Your task to perform on an android device: empty trash in google photos Image 0: 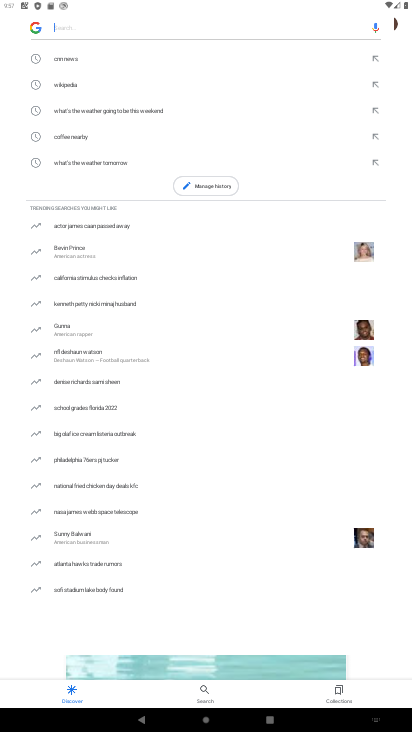
Step 0: press home button
Your task to perform on an android device: empty trash in google photos Image 1: 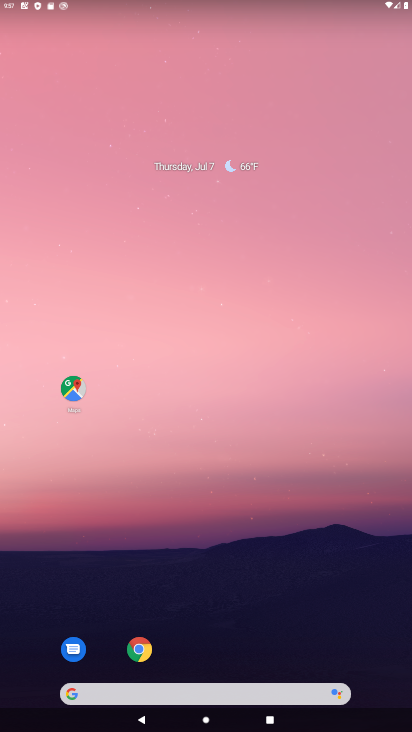
Step 1: drag from (216, 505) to (227, 4)
Your task to perform on an android device: empty trash in google photos Image 2: 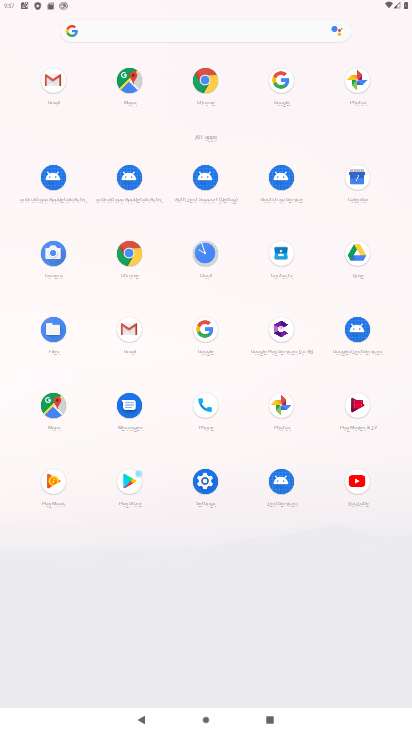
Step 2: click (353, 71)
Your task to perform on an android device: empty trash in google photos Image 3: 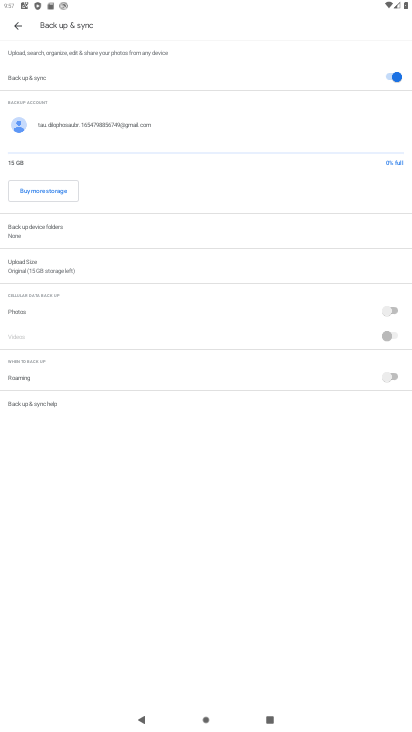
Step 3: click (22, 30)
Your task to perform on an android device: empty trash in google photos Image 4: 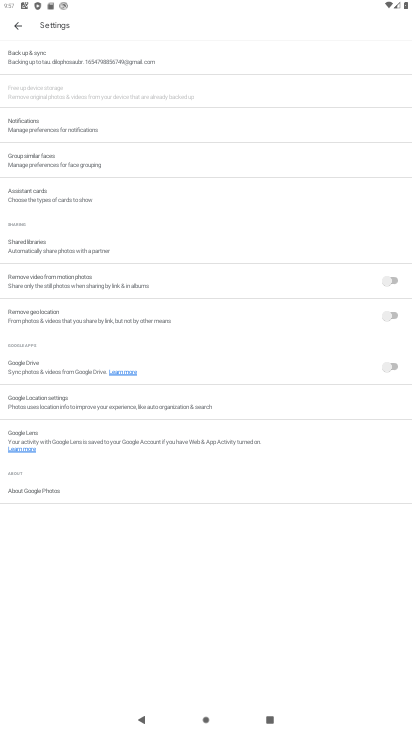
Step 4: click (15, 33)
Your task to perform on an android device: empty trash in google photos Image 5: 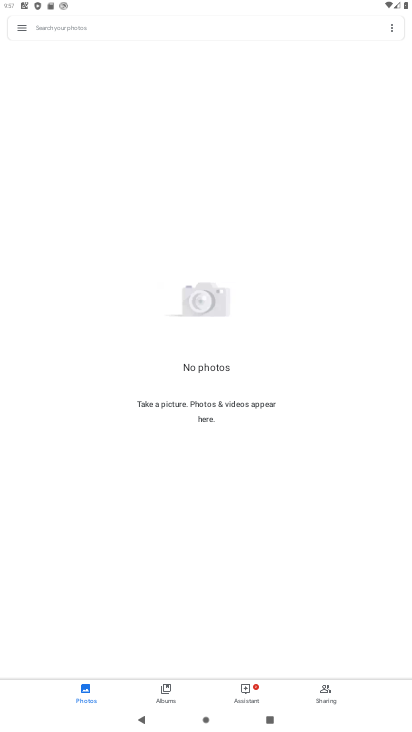
Step 5: click (22, 34)
Your task to perform on an android device: empty trash in google photos Image 6: 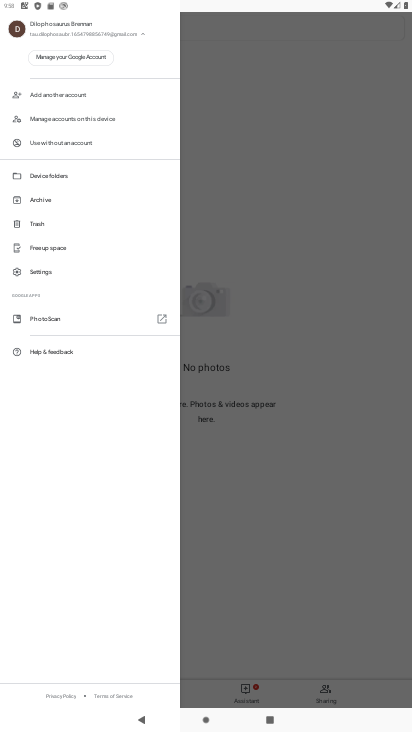
Step 6: click (40, 226)
Your task to perform on an android device: empty trash in google photos Image 7: 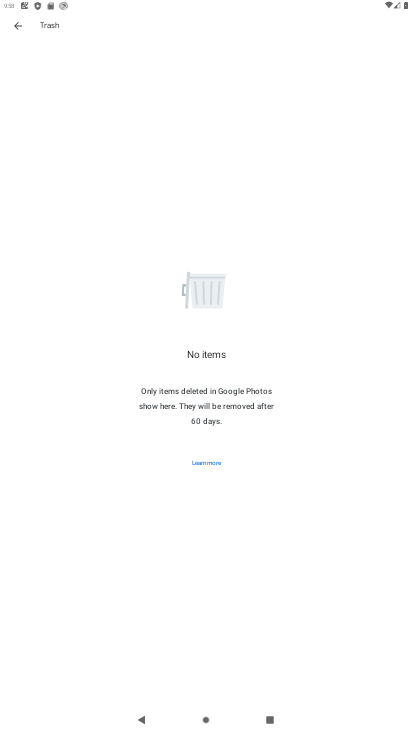
Step 7: task complete